Your task to perform on an android device: open app "PlayWell" Image 0: 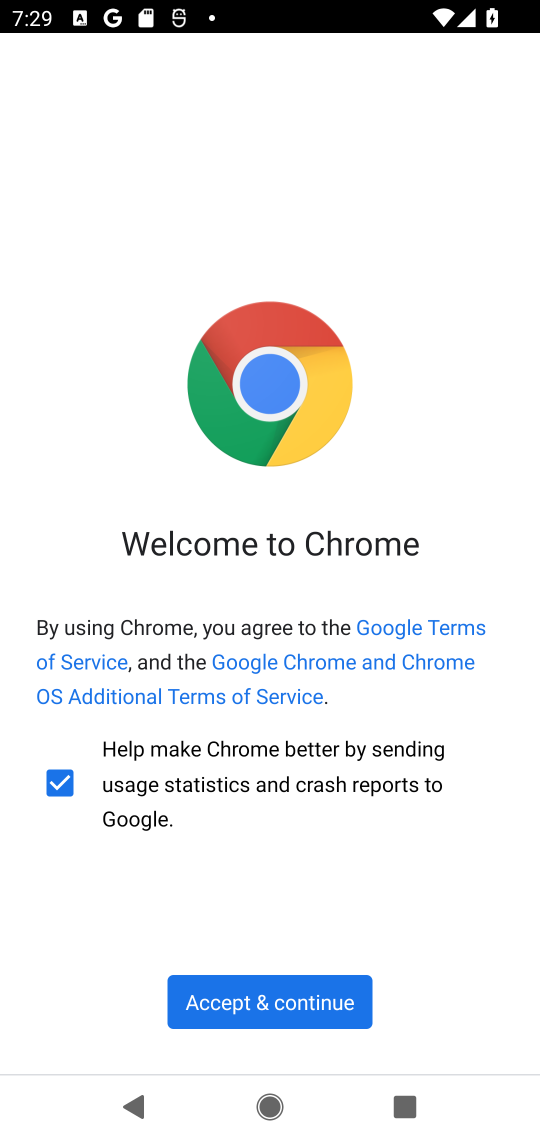
Step 0: press home button
Your task to perform on an android device: open app "PlayWell" Image 1: 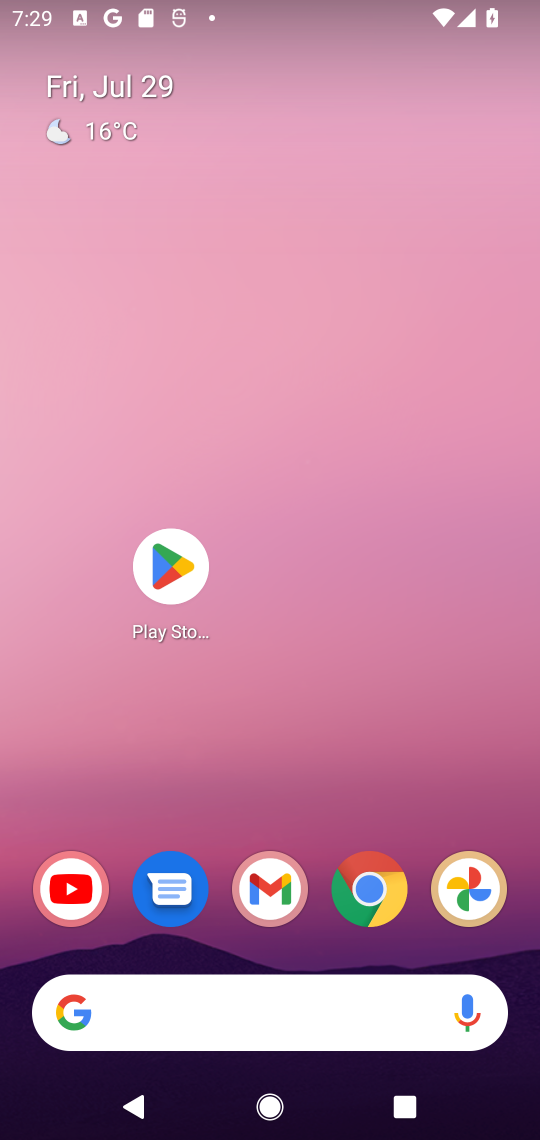
Step 1: click (173, 562)
Your task to perform on an android device: open app "PlayWell" Image 2: 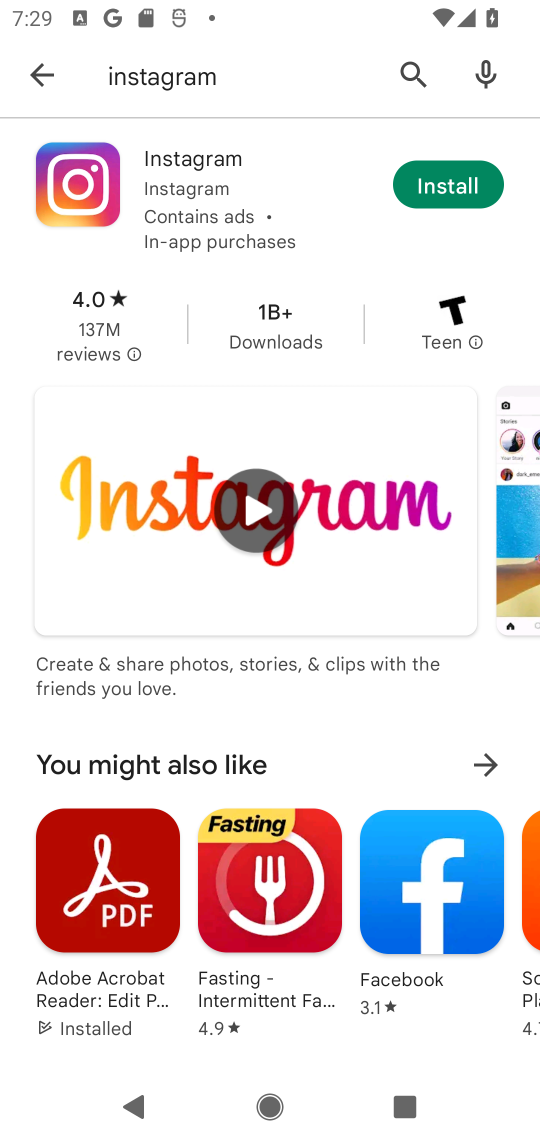
Step 2: click (407, 75)
Your task to perform on an android device: open app "PlayWell" Image 3: 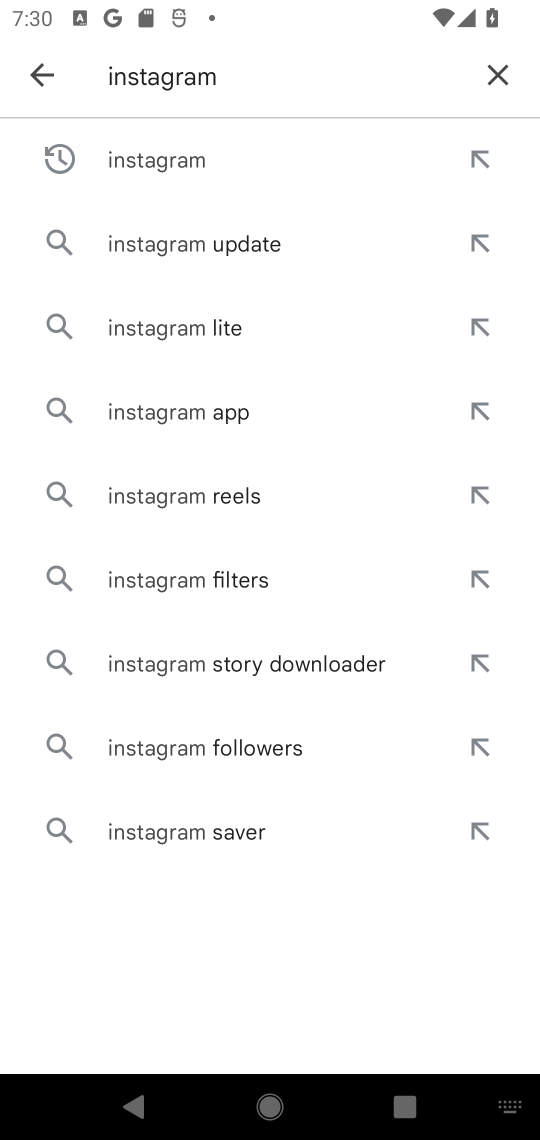
Step 3: click (502, 63)
Your task to perform on an android device: open app "PlayWell" Image 4: 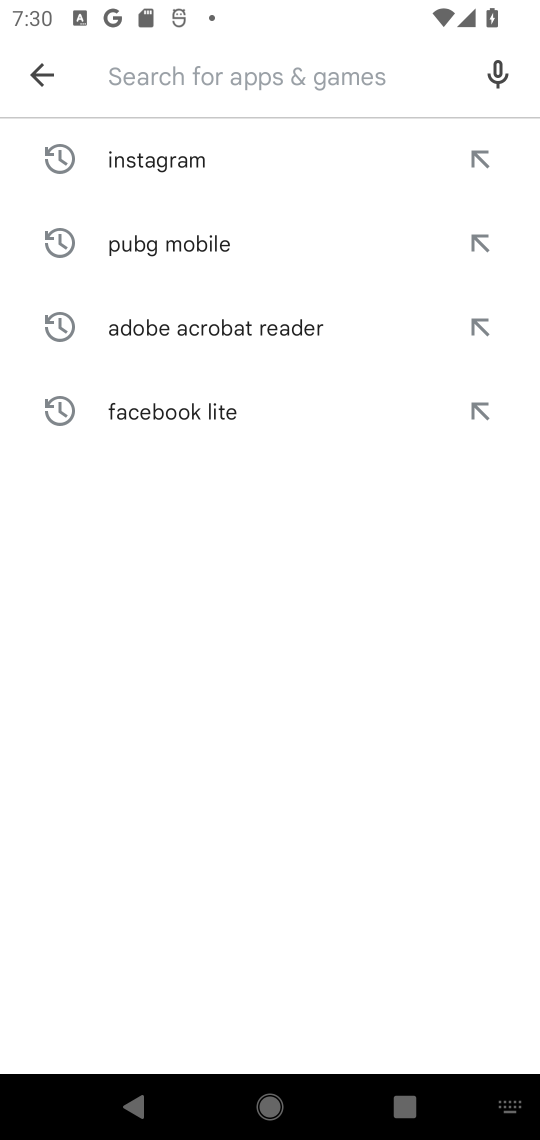
Step 4: type "PlayWell"
Your task to perform on an android device: open app "PlayWell" Image 5: 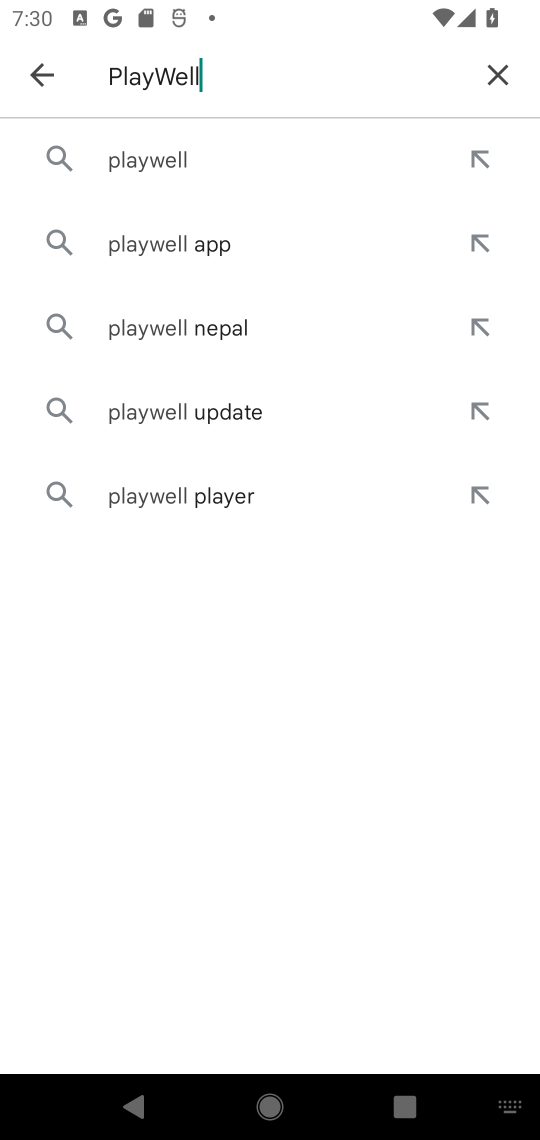
Step 5: click (140, 153)
Your task to perform on an android device: open app "PlayWell" Image 6: 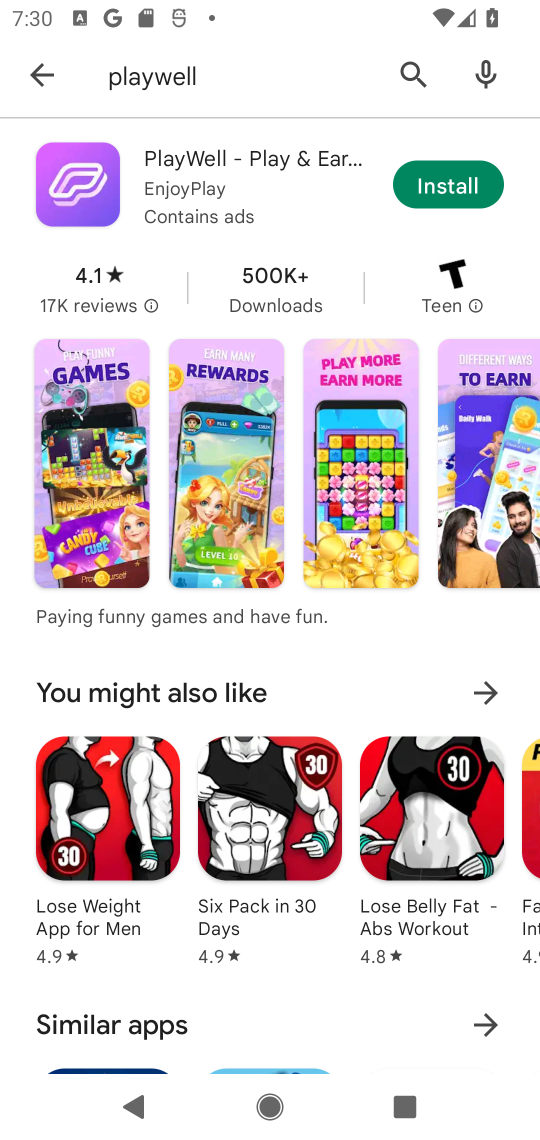
Step 6: task complete